Your task to perform on an android device: Search for seafood restaurants on Google Maps Image 0: 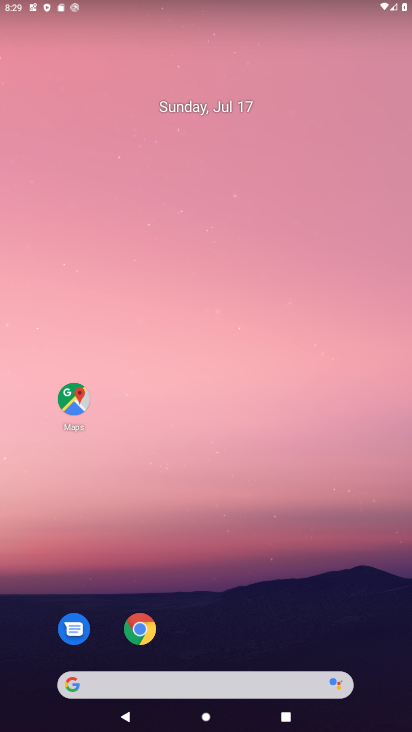
Step 0: drag from (237, 689) to (222, 95)
Your task to perform on an android device: Search for seafood restaurants on Google Maps Image 1: 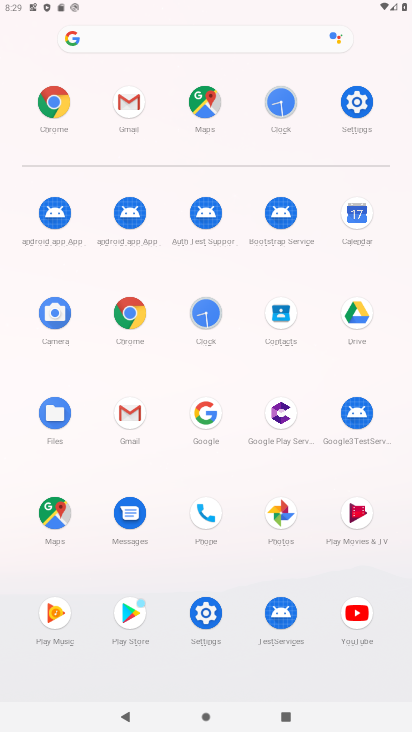
Step 1: click (61, 519)
Your task to perform on an android device: Search for seafood restaurants on Google Maps Image 2: 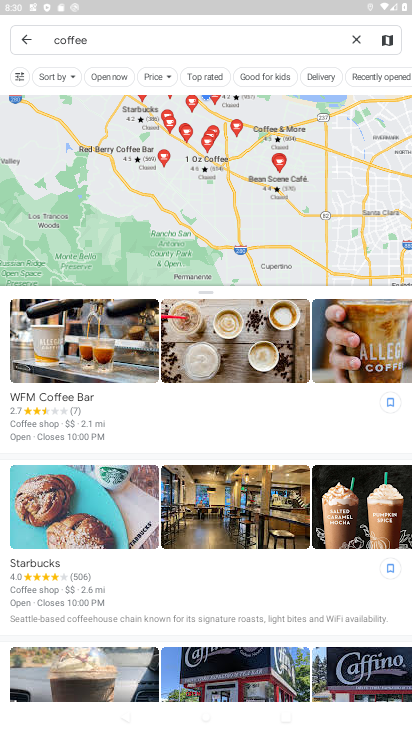
Step 2: click (360, 37)
Your task to perform on an android device: Search for seafood restaurants on Google Maps Image 3: 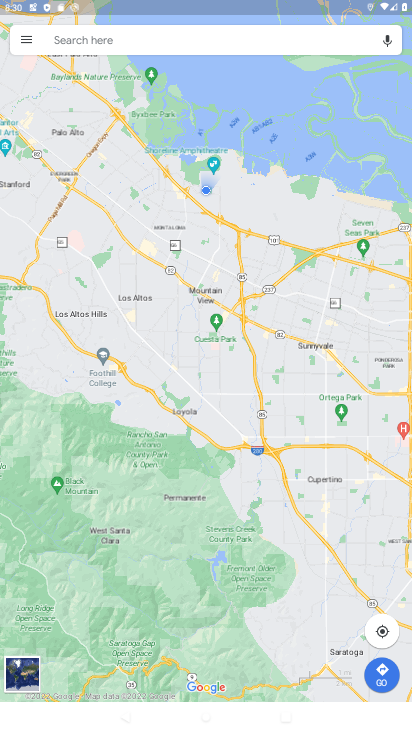
Step 3: click (299, 35)
Your task to perform on an android device: Search for seafood restaurants on Google Maps Image 4: 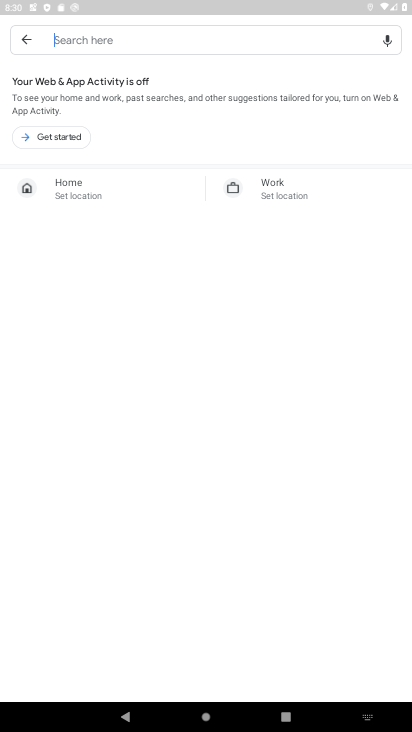
Step 4: type "seafood restaurants"
Your task to perform on an android device: Search for seafood restaurants on Google Maps Image 5: 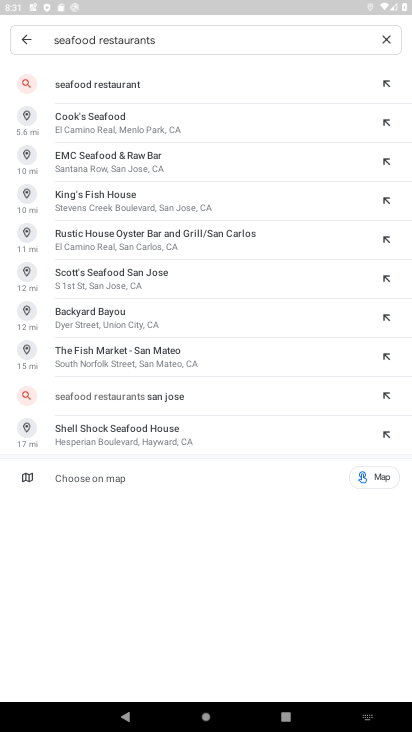
Step 5: click (127, 82)
Your task to perform on an android device: Search for seafood restaurants on Google Maps Image 6: 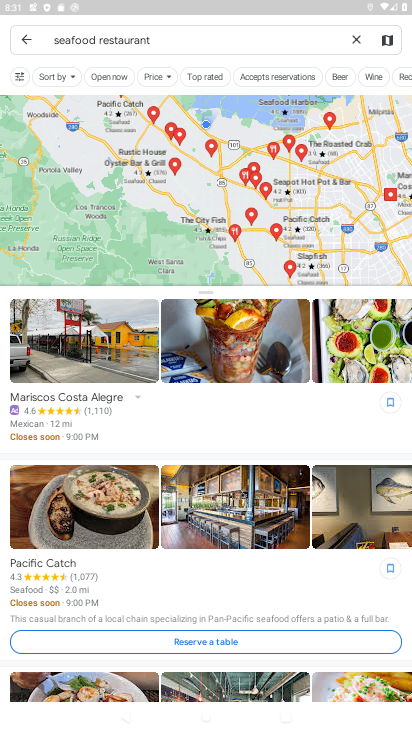
Step 6: task complete